Your task to perform on an android device: turn off location Image 0: 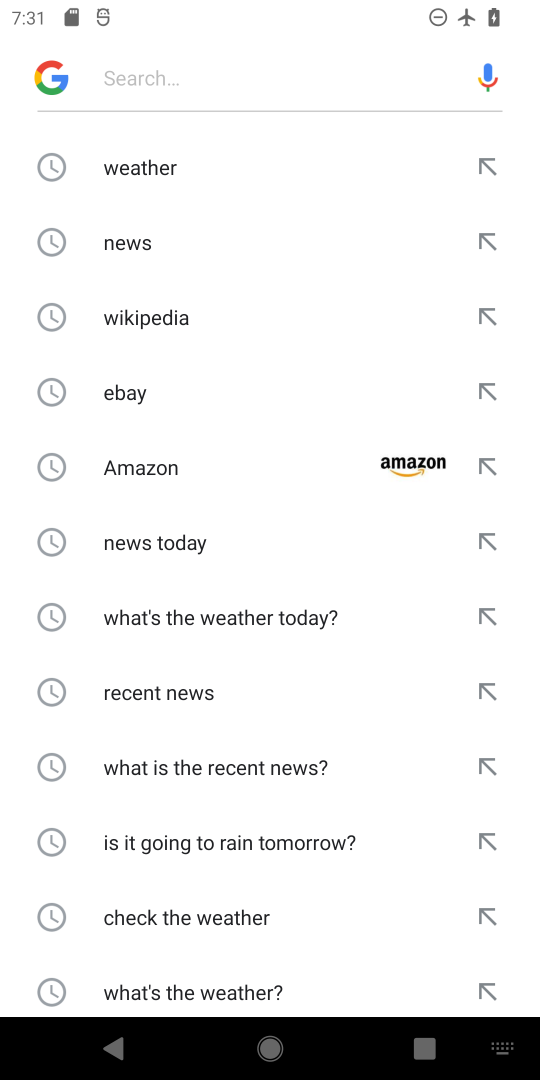
Step 0: press back button
Your task to perform on an android device: turn off location Image 1: 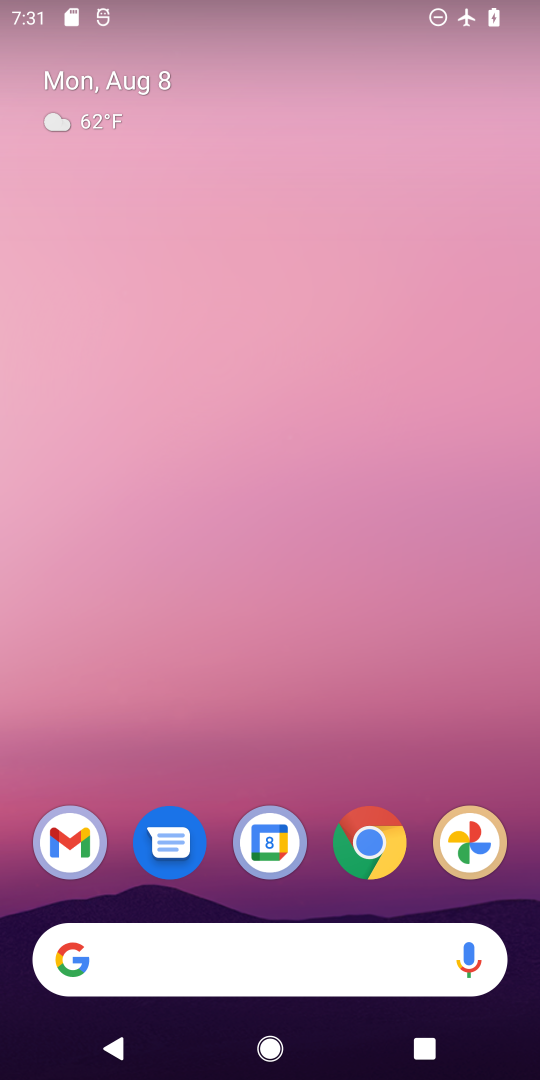
Step 1: drag from (322, 899) to (489, 571)
Your task to perform on an android device: turn off location Image 2: 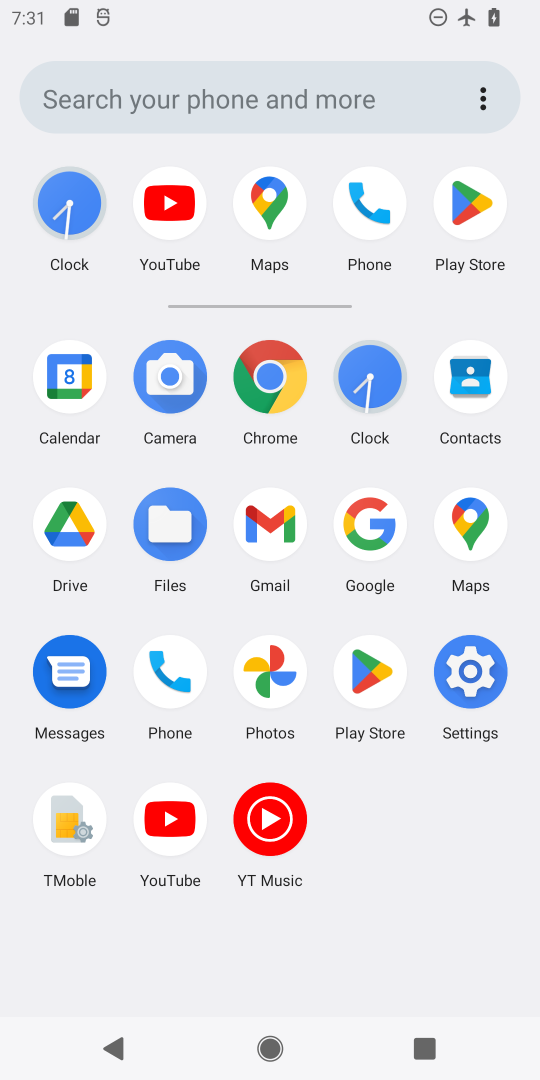
Step 2: click (462, 669)
Your task to perform on an android device: turn off location Image 3: 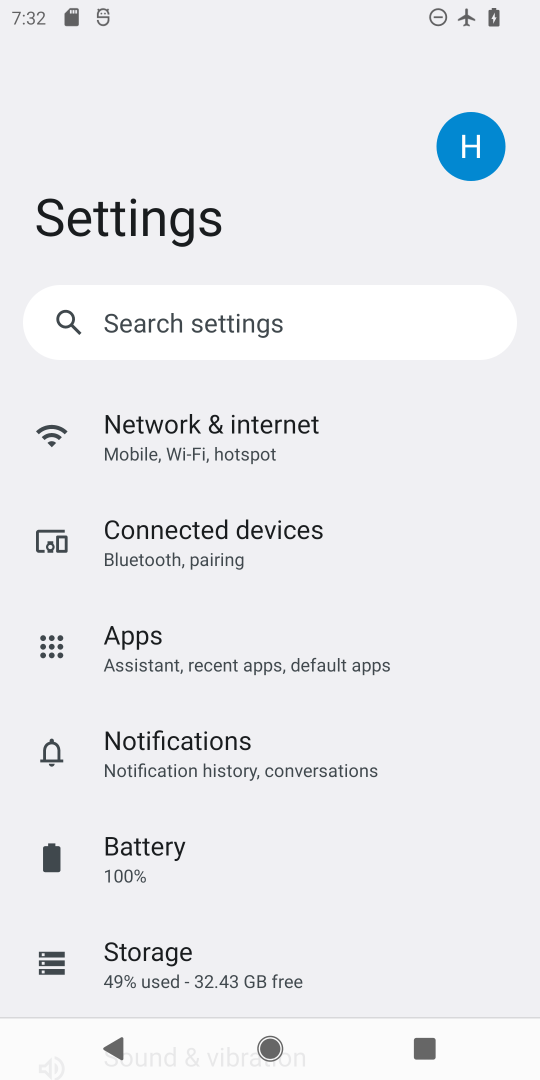
Step 3: drag from (142, 870) to (179, 231)
Your task to perform on an android device: turn off location Image 4: 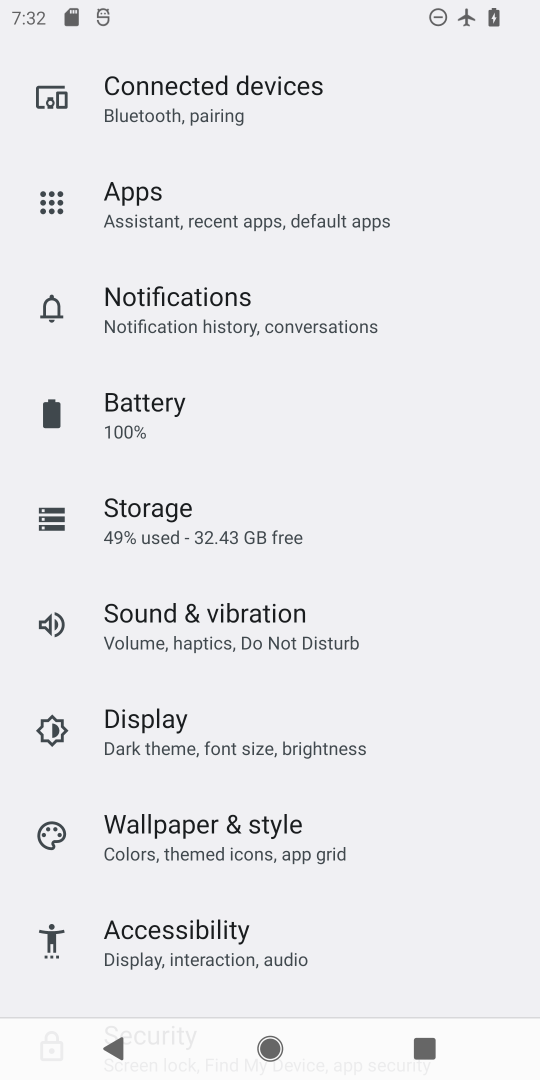
Step 4: drag from (172, 890) to (214, 240)
Your task to perform on an android device: turn off location Image 5: 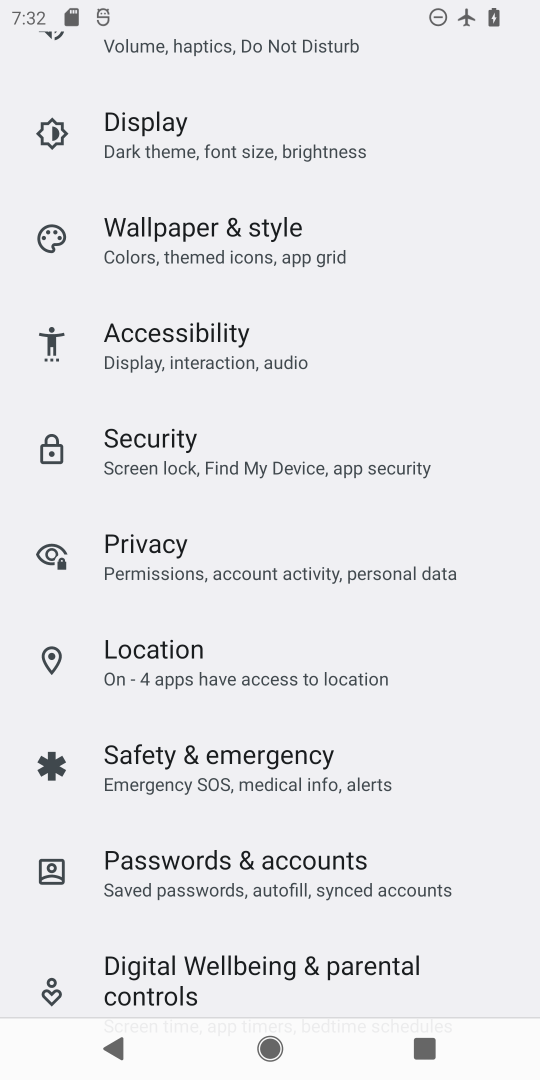
Step 5: click (208, 683)
Your task to perform on an android device: turn off location Image 6: 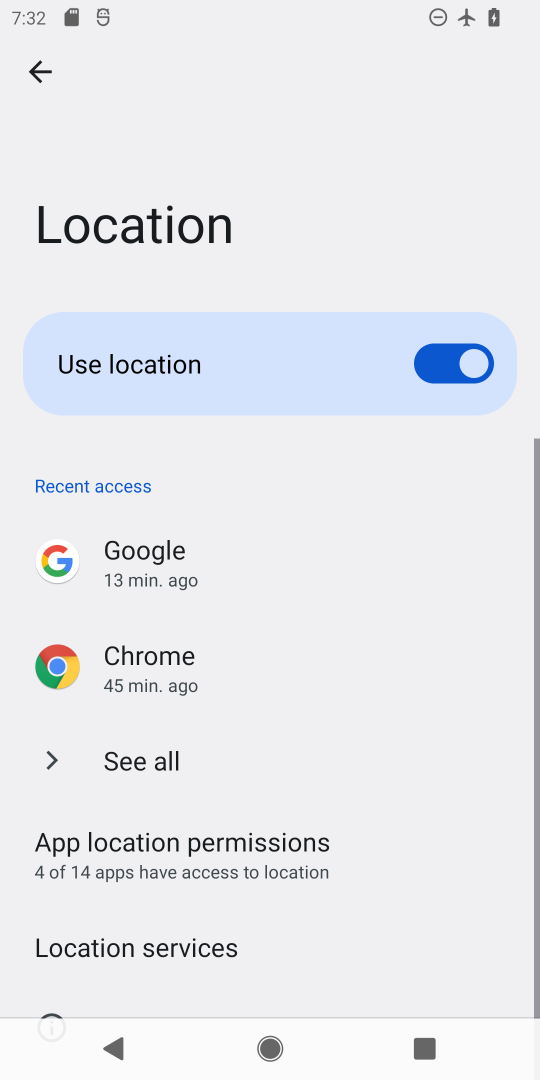
Step 6: click (416, 367)
Your task to perform on an android device: turn off location Image 7: 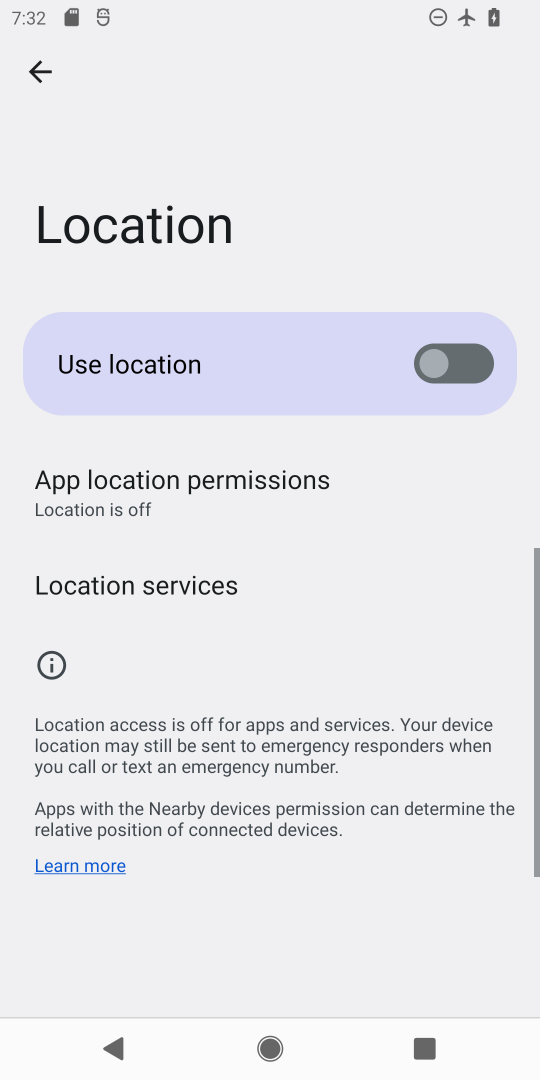
Step 7: task complete